Your task to perform on an android device: Open calendar and show me the third week of next month Image 0: 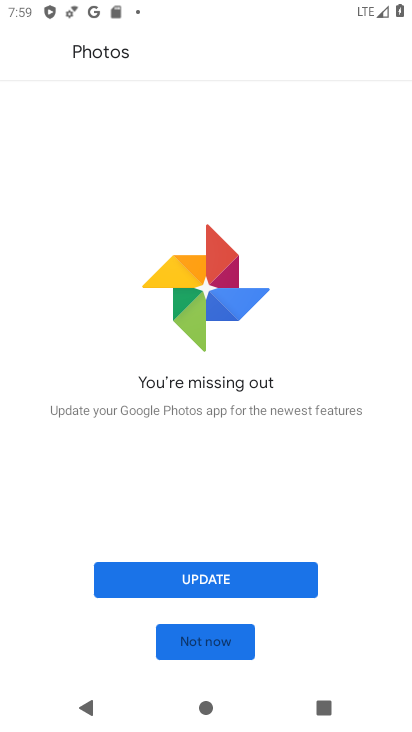
Step 0: press home button
Your task to perform on an android device: Open calendar and show me the third week of next month Image 1: 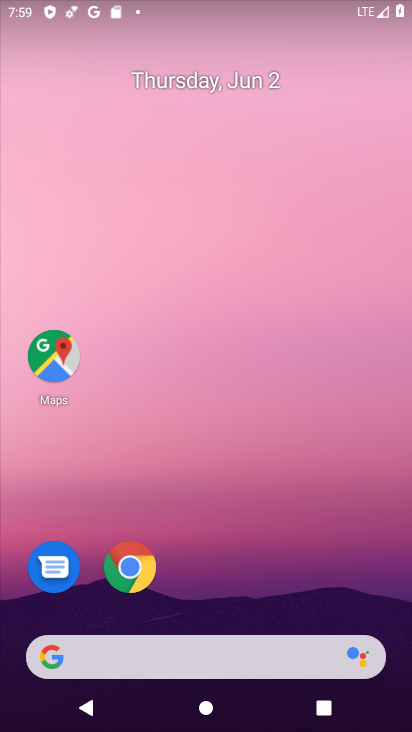
Step 1: click (258, 356)
Your task to perform on an android device: Open calendar and show me the third week of next month Image 2: 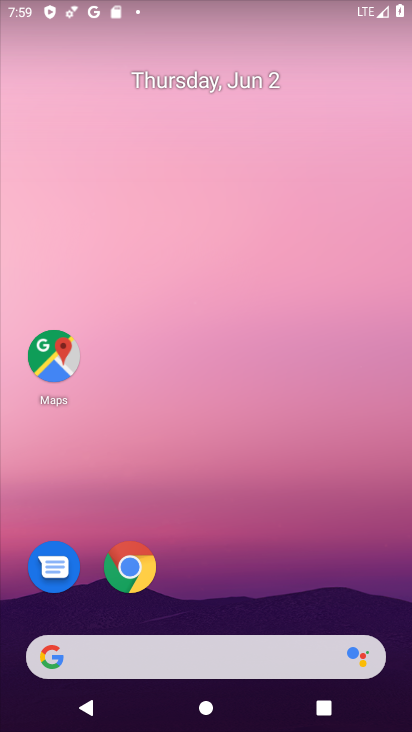
Step 2: drag from (259, 496) to (198, 185)
Your task to perform on an android device: Open calendar and show me the third week of next month Image 3: 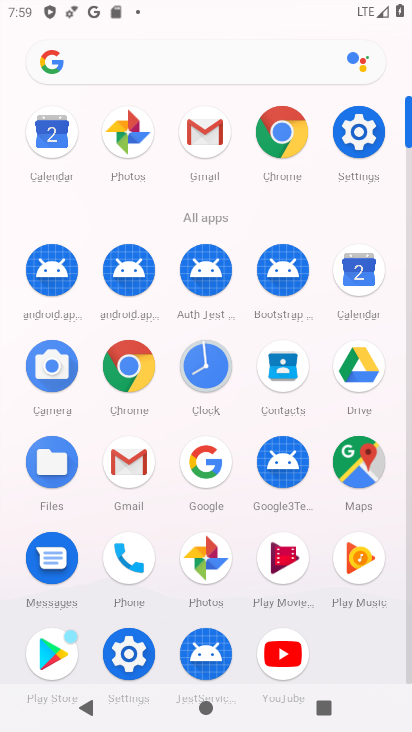
Step 3: click (368, 275)
Your task to perform on an android device: Open calendar and show me the third week of next month Image 4: 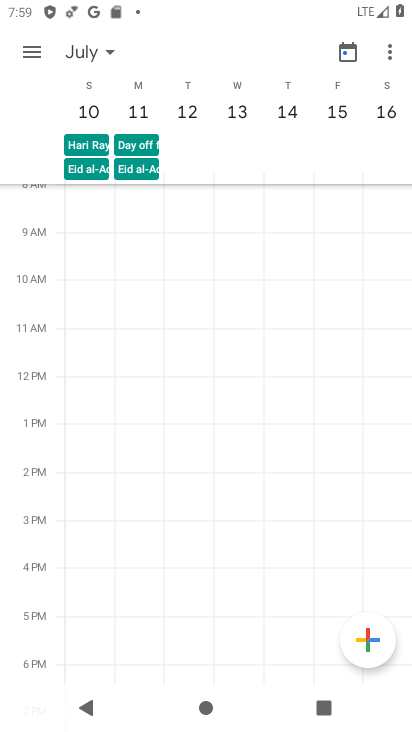
Step 4: click (73, 56)
Your task to perform on an android device: Open calendar and show me the third week of next month Image 5: 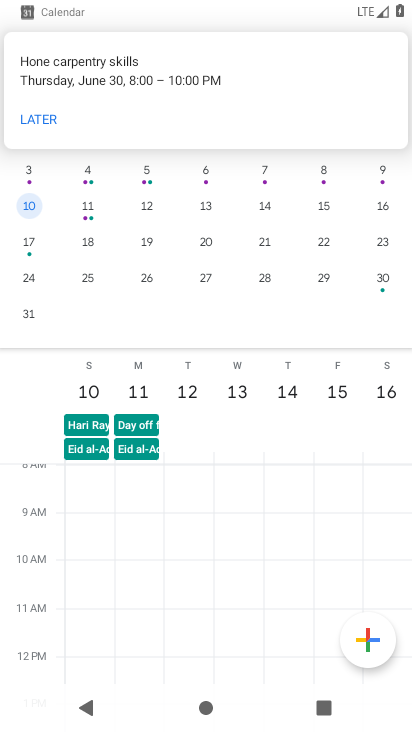
Step 5: click (25, 243)
Your task to perform on an android device: Open calendar and show me the third week of next month Image 6: 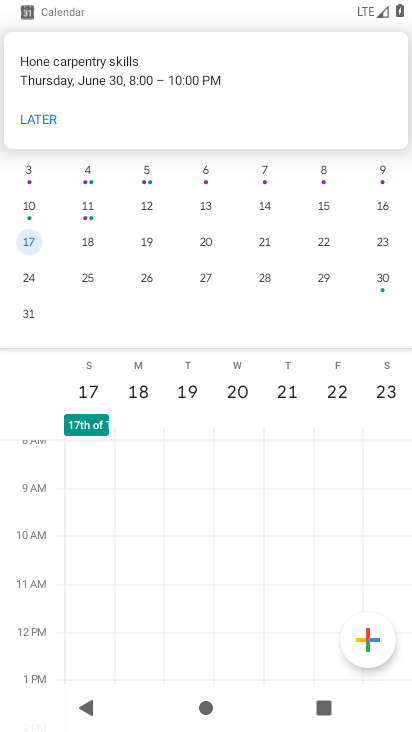
Step 6: task complete